Your task to perform on an android device: Show me popular videos on Youtube Image 0: 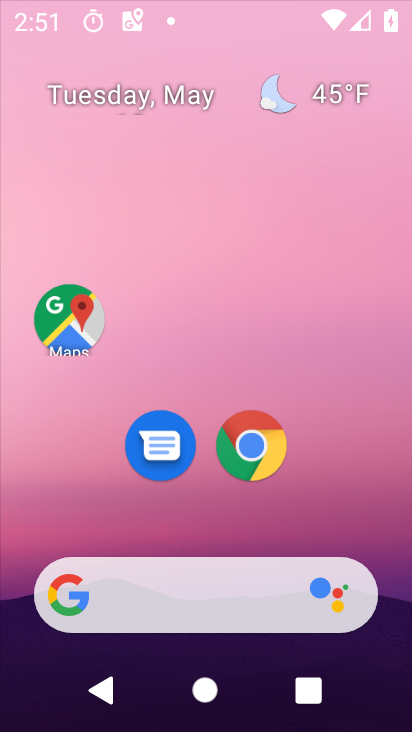
Step 0: drag from (202, 491) to (297, 98)
Your task to perform on an android device: Show me popular videos on Youtube Image 1: 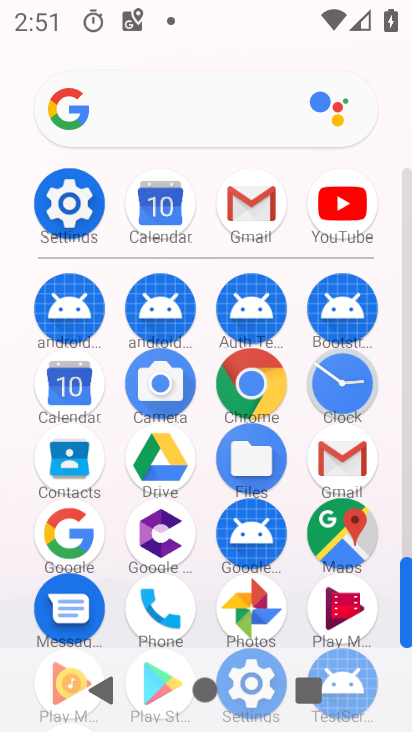
Step 1: click (351, 213)
Your task to perform on an android device: Show me popular videos on Youtube Image 2: 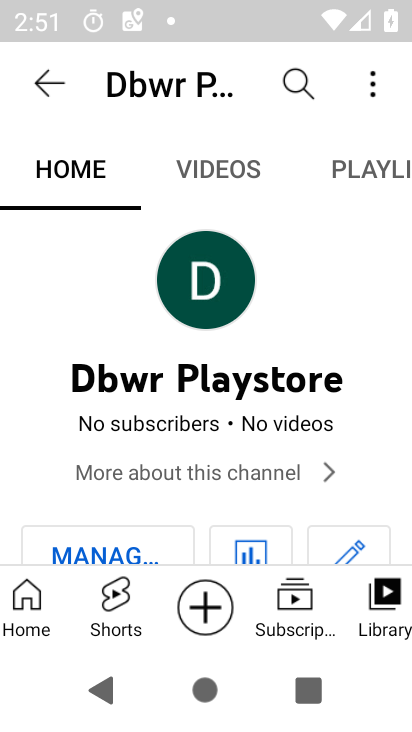
Step 2: click (25, 606)
Your task to perform on an android device: Show me popular videos on Youtube Image 3: 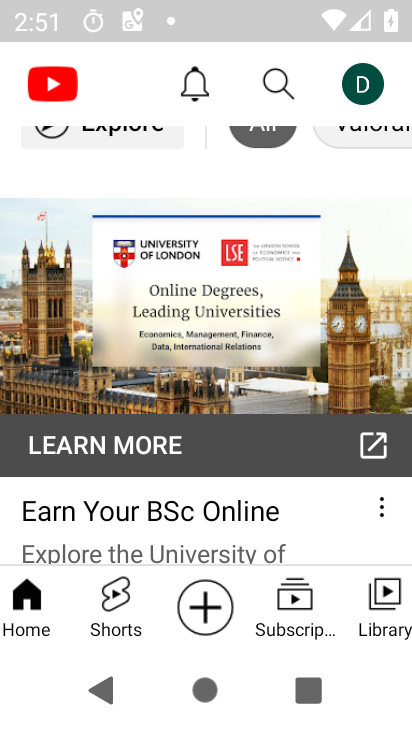
Step 3: click (125, 161)
Your task to perform on an android device: Show me popular videos on Youtube Image 4: 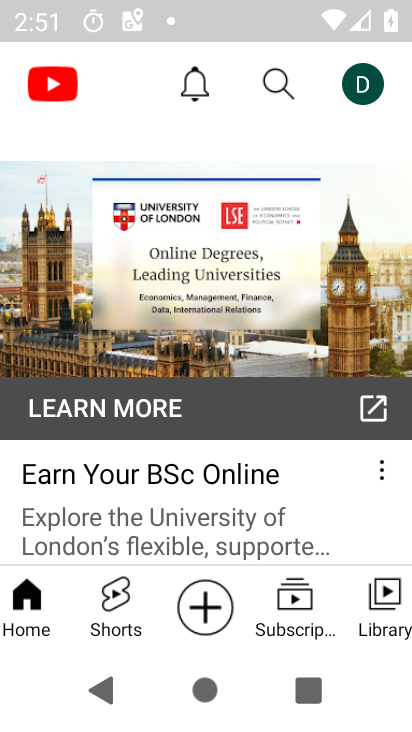
Step 4: drag from (125, 169) to (126, 585)
Your task to perform on an android device: Show me popular videos on Youtube Image 5: 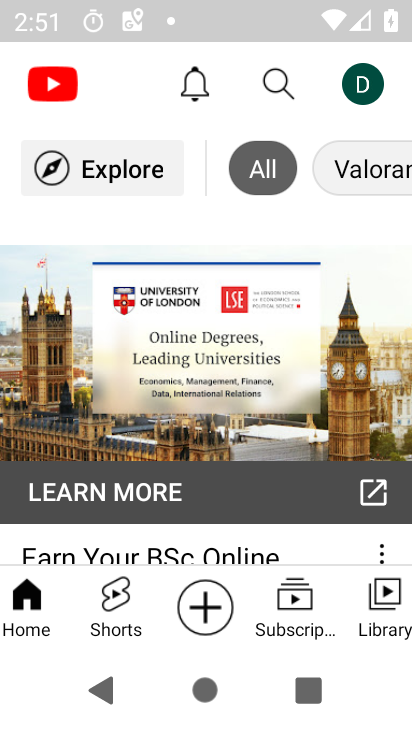
Step 5: click (85, 165)
Your task to perform on an android device: Show me popular videos on Youtube Image 6: 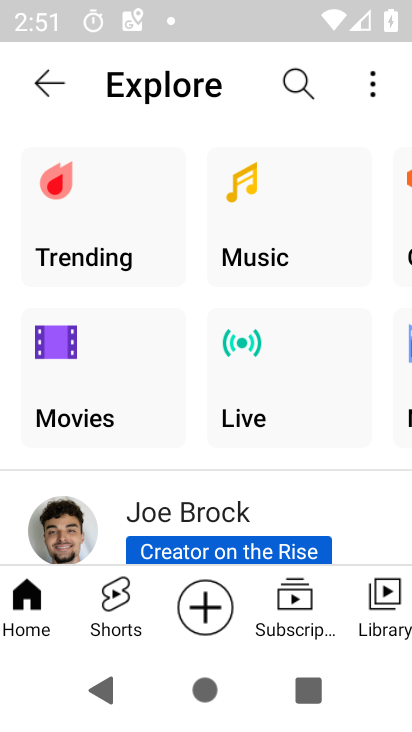
Step 6: click (72, 210)
Your task to perform on an android device: Show me popular videos on Youtube Image 7: 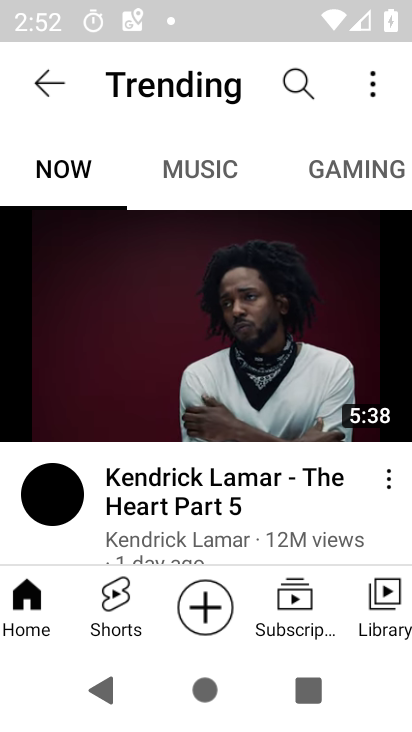
Step 7: task complete